Your task to perform on an android device: turn on wifi Image 0: 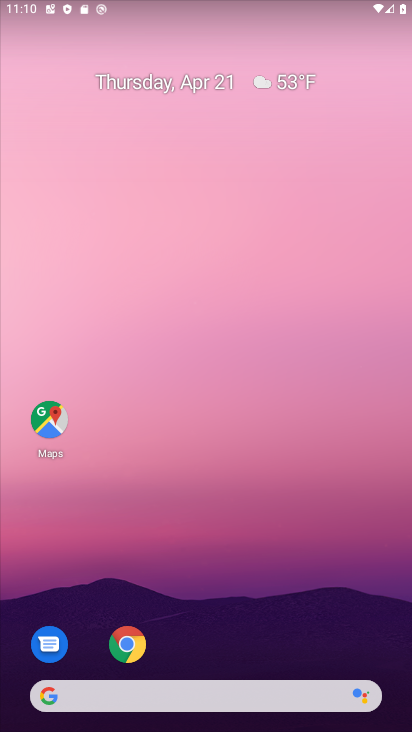
Step 0: drag from (240, 374) to (222, 197)
Your task to perform on an android device: turn on wifi Image 1: 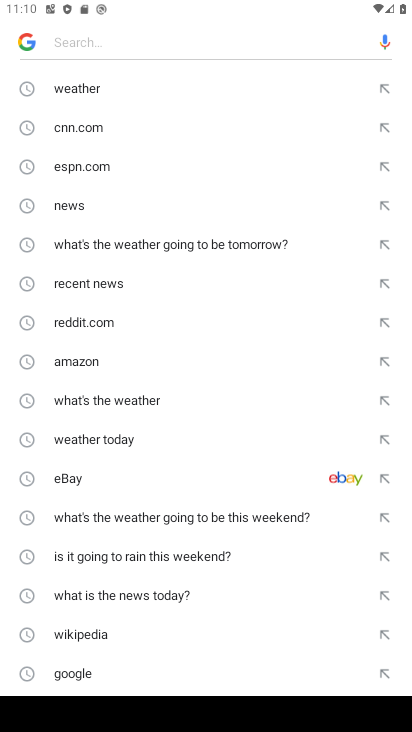
Step 1: press home button
Your task to perform on an android device: turn on wifi Image 2: 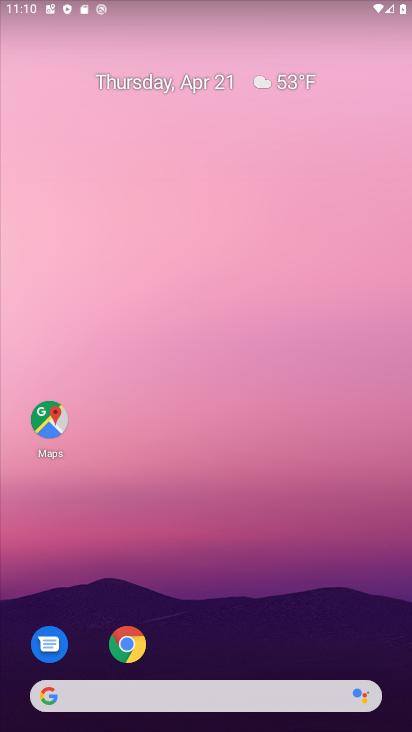
Step 2: drag from (268, 641) to (226, 103)
Your task to perform on an android device: turn on wifi Image 3: 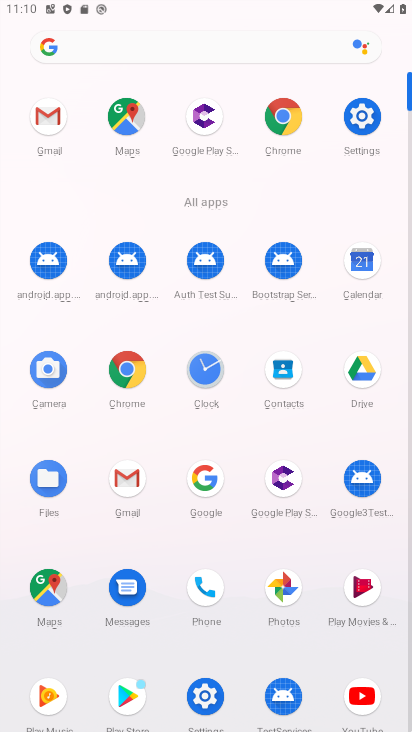
Step 3: click (355, 131)
Your task to perform on an android device: turn on wifi Image 4: 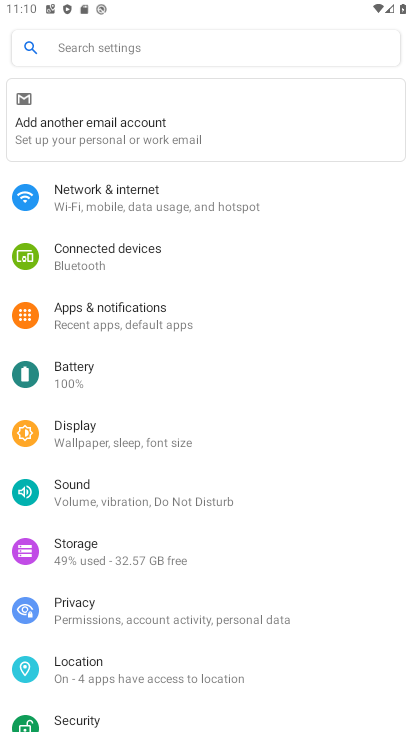
Step 4: click (292, 210)
Your task to perform on an android device: turn on wifi Image 5: 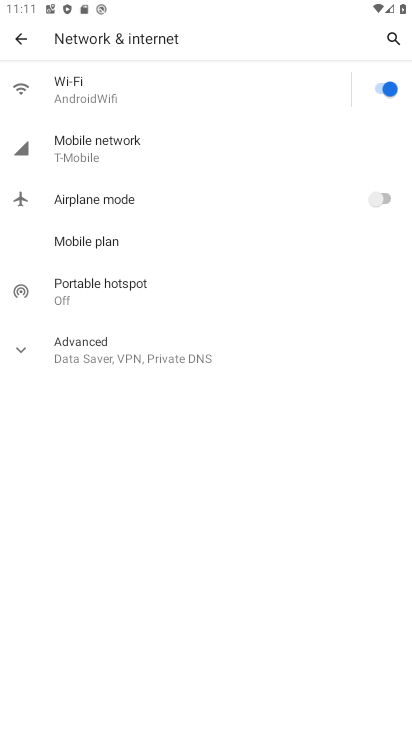
Step 5: task complete